Your task to perform on an android device: turn off translation in the chrome app Image 0: 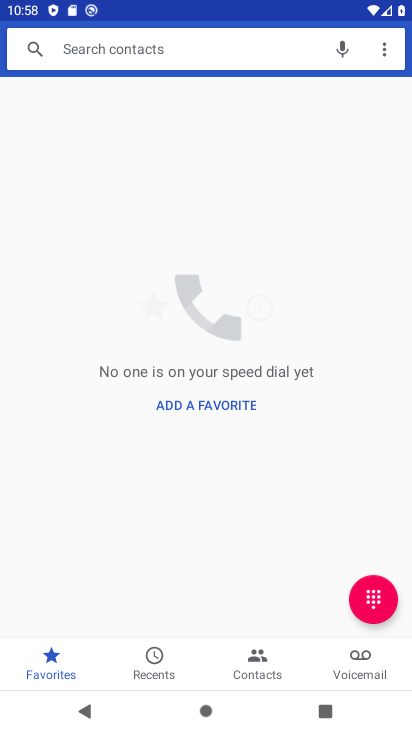
Step 0: press home button
Your task to perform on an android device: turn off translation in the chrome app Image 1: 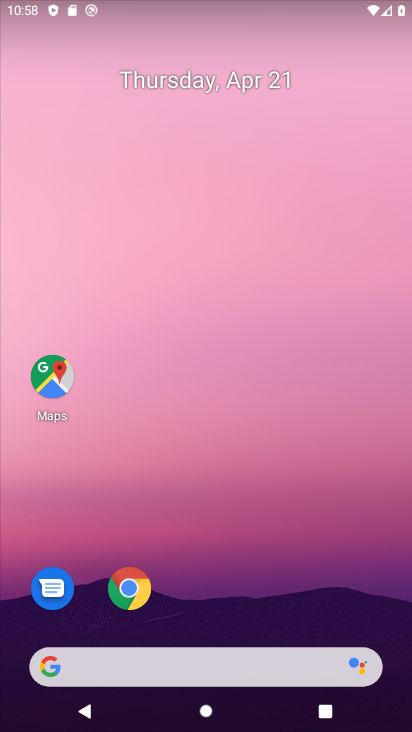
Step 1: click (143, 589)
Your task to perform on an android device: turn off translation in the chrome app Image 2: 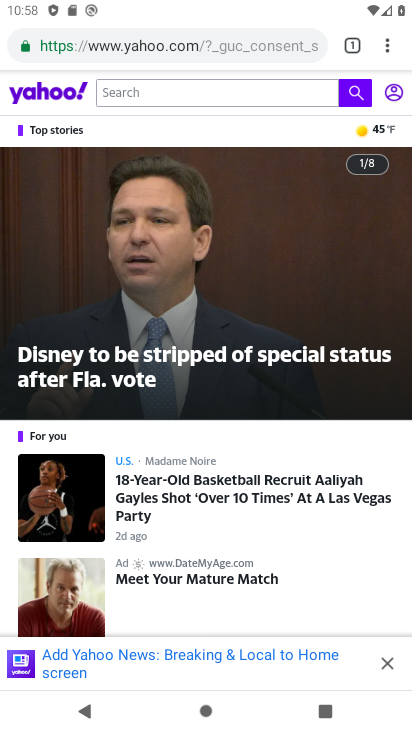
Step 2: click (387, 54)
Your task to perform on an android device: turn off translation in the chrome app Image 3: 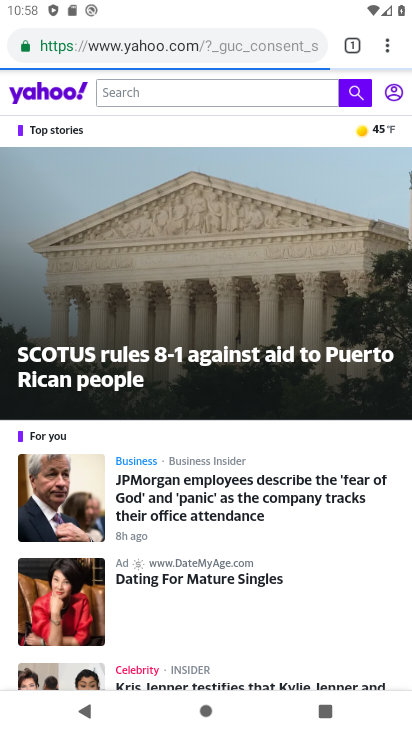
Step 3: click (383, 45)
Your task to perform on an android device: turn off translation in the chrome app Image 4: 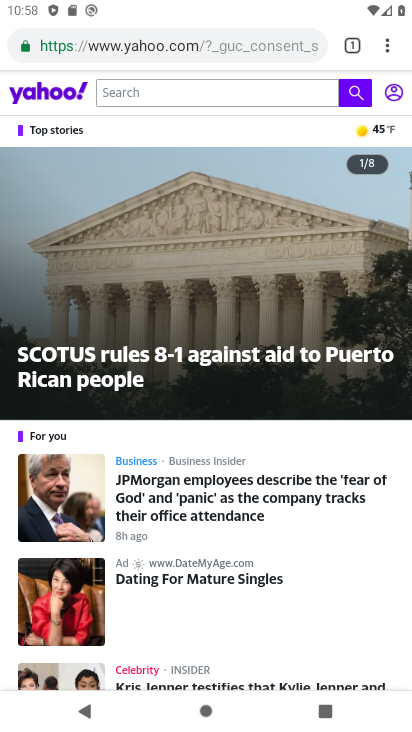
Step 4: drag from (383, 45) to (243, 604)
Your task to perform on an android device: turn off translation in the chrome app Image 5: 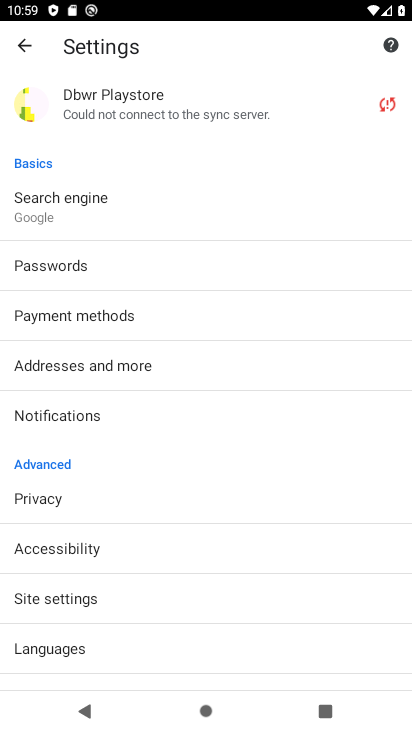
Step 5: click (111, 642)
Your task to perform on an android device: turn off translation in the chrome app Image 6: 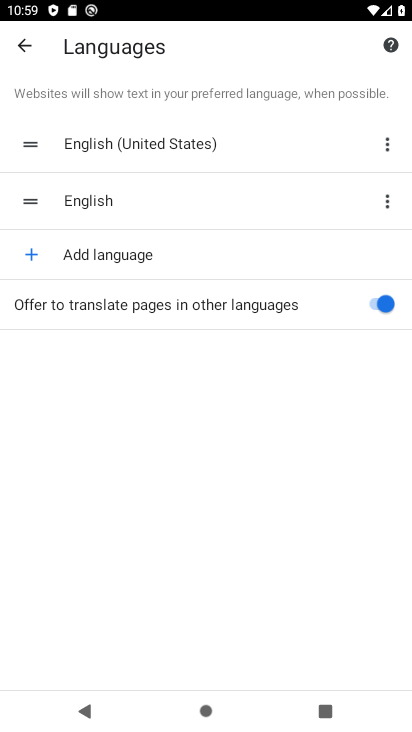
Step 6: click (369, 304)
Your task to perform on an android device: turn off translation in the chrome app Image 7: 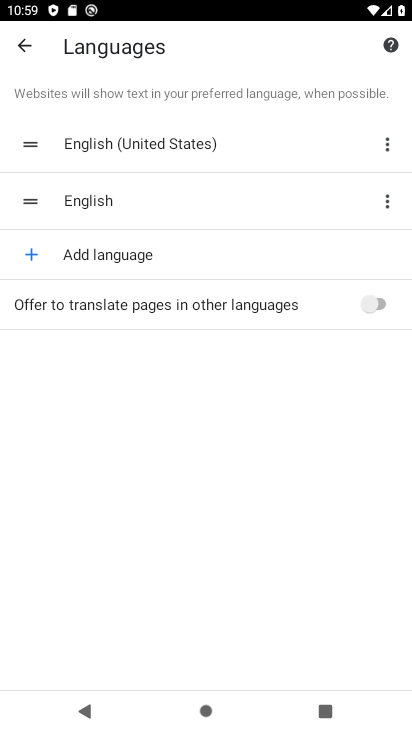
Step 7: task complete